Your task to perform on an android device: Go to Android settings Image 0: 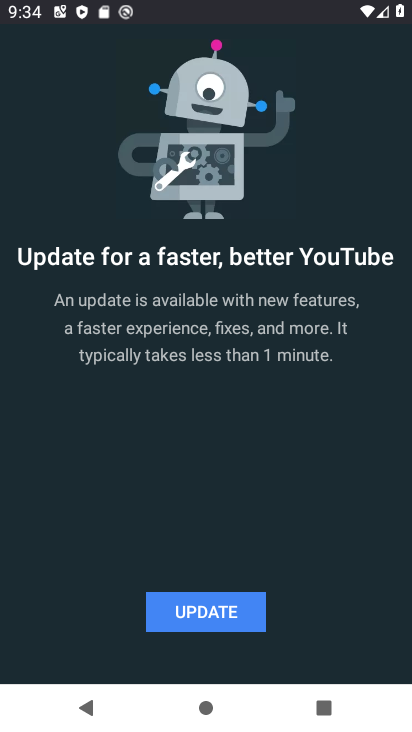
Step 0: press back button
Your task to perform on an android device: Go to Android settings Image 1: 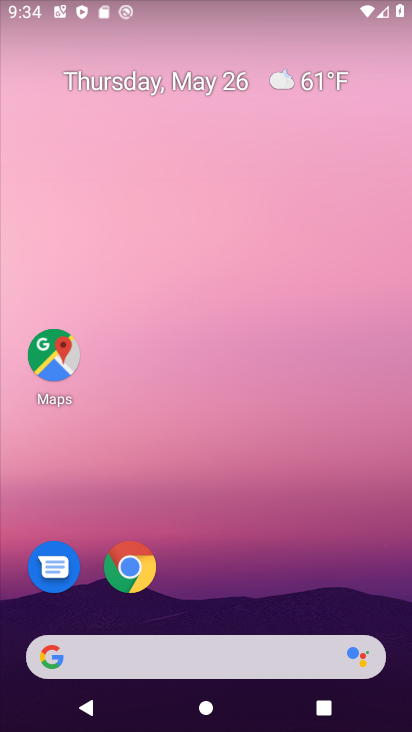
Step 1: drag from (311, 565) to (411, 0)
Your task to perform on an android device: Go to Android settings Image 2: 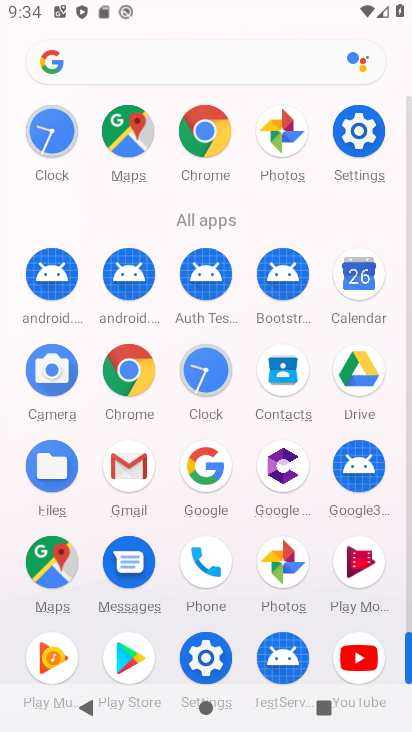
Step 2: click (349, 169)
Your task to perform on an android device: Go to Android settings Image 3: 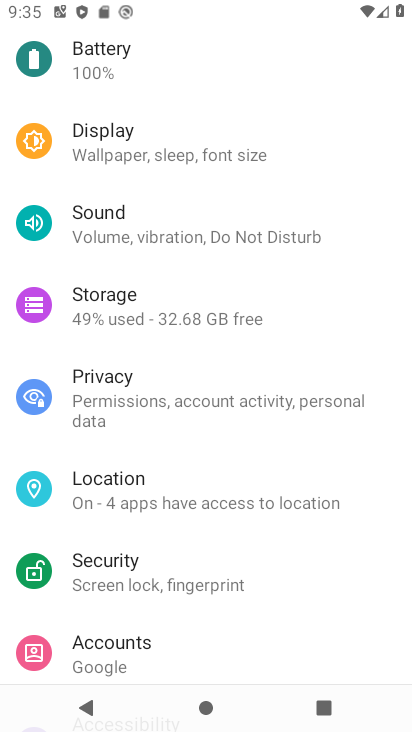
Step 3: task complete